Your task to perform on an android device: create a new album in the google photos Image 0: 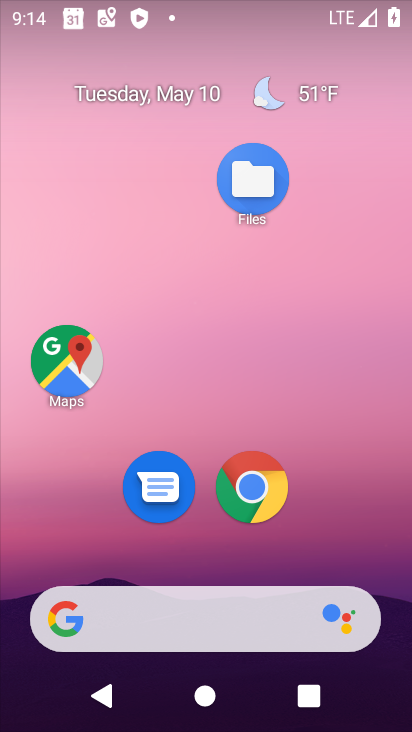
Step 0: drag from (215, 542) to (228, 45)
Your task to perform on an android device: create a new album in the google photos Image 1: 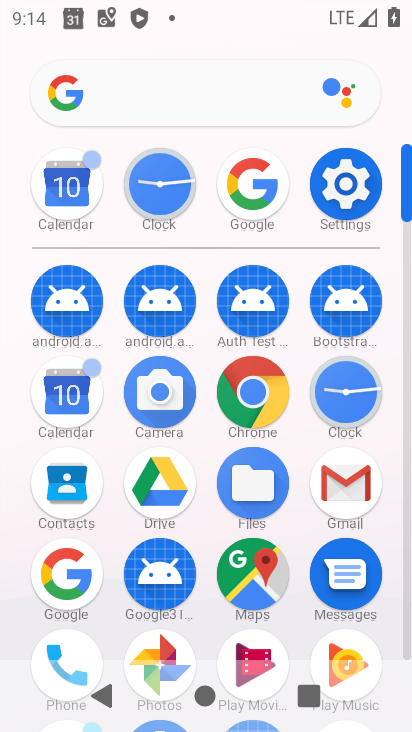
Step 1: click (160, 642)
Your task to perform on an android device: create a new album in the google photos Image 2: 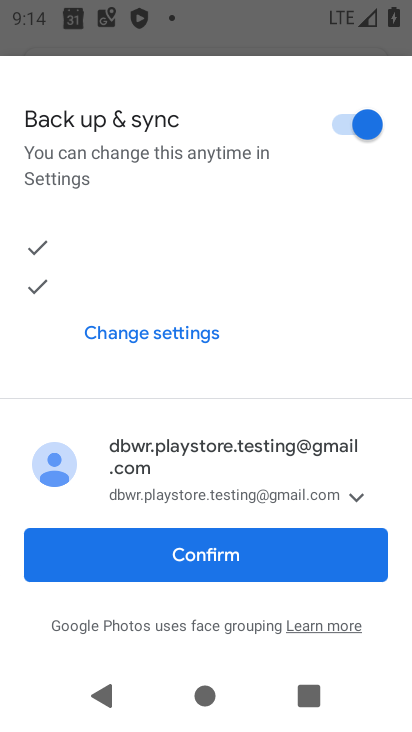
Step 2: click (154, 607)
Your task to perform on an android device: create a new album in the google photos Image 3: 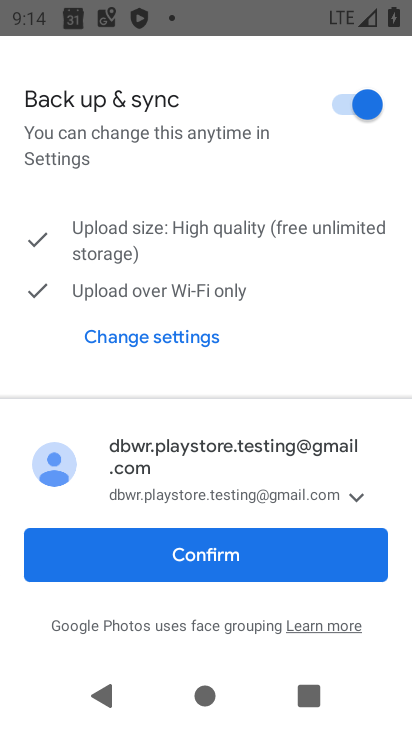
Step 3: click (201, 561)
Your task to perform on an android device: create a new album in the google photos Image 4: 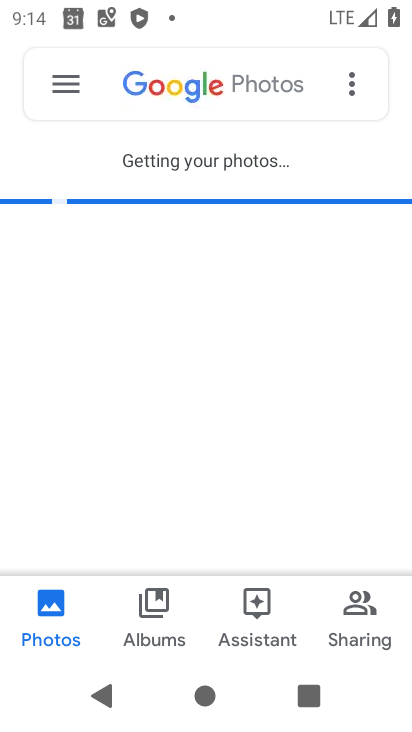
Step 4: click (157, 613)
Your task to perform on an android device: create a new album in the google photos Image 5: 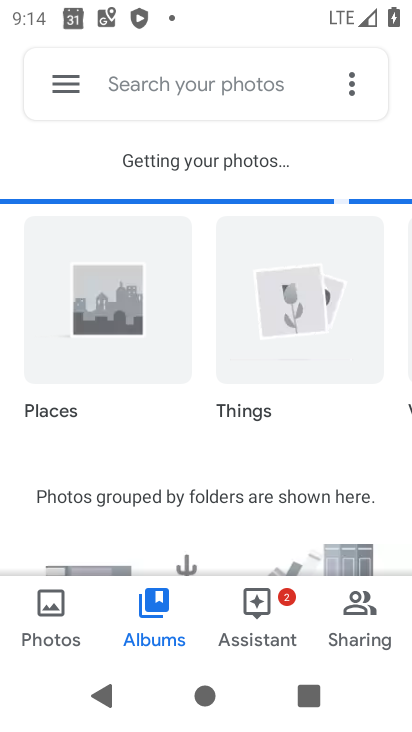
Step 5: drag from (130, 500) to (132, 458)
Your task to perform on an android device: create a new album in the google photos Image 6: 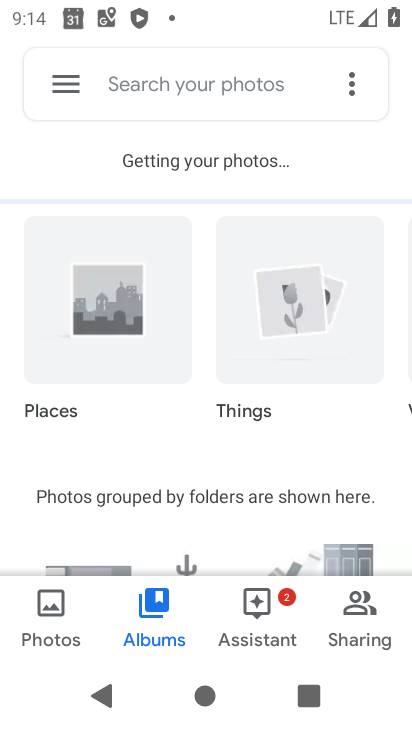
Step 6: drag from (231, 533) to (214, 46)
Your task to perform on an android device: create a new album in the google photos Image 7: 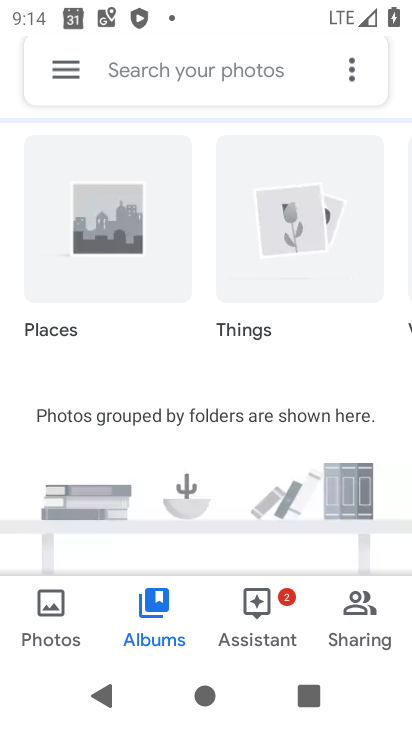
Step 7: drag from (199, 262) to (193, 551)
Your task to perform on an android device: create a new album in the google photos Image 8: 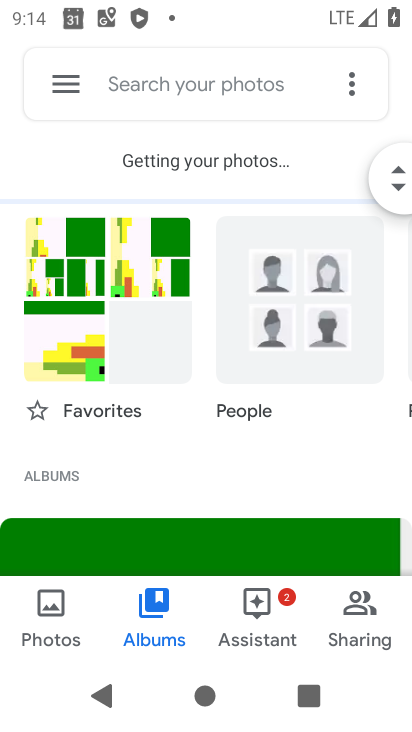
Step 8: drag from (224, 497) to (213, 588)
Your task to perform on an android device: create a new album in the google photos Image 9: 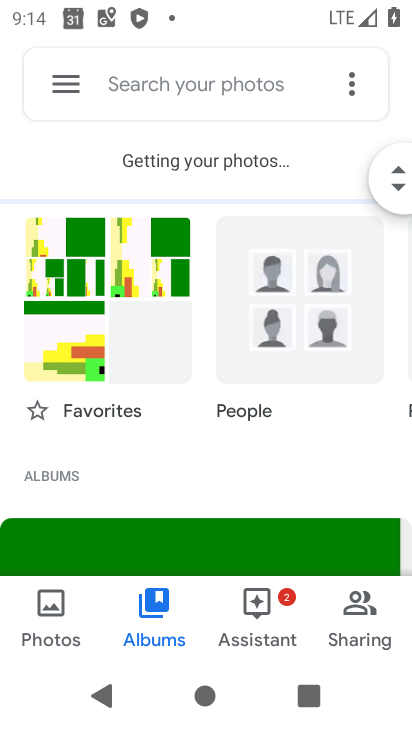
Step 9: click (26, 486)
Your task to perform on an android device: create a new album in the google photos Image 10: 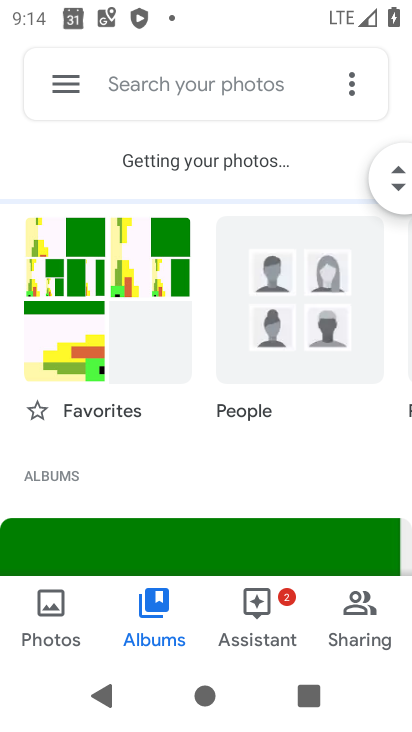
Step 10: click (63, 470)
Your task to perform on an android device: create a new album in the google photos Image 11: 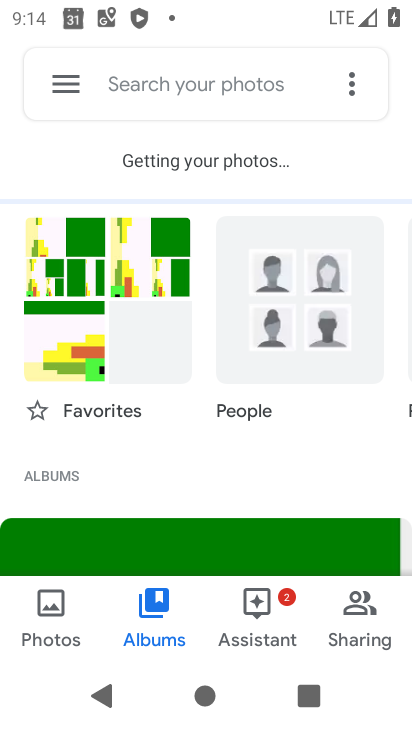
Step 11: task complete